Your task to perform on an android device: add a label to a message in the gmail app Image 0: 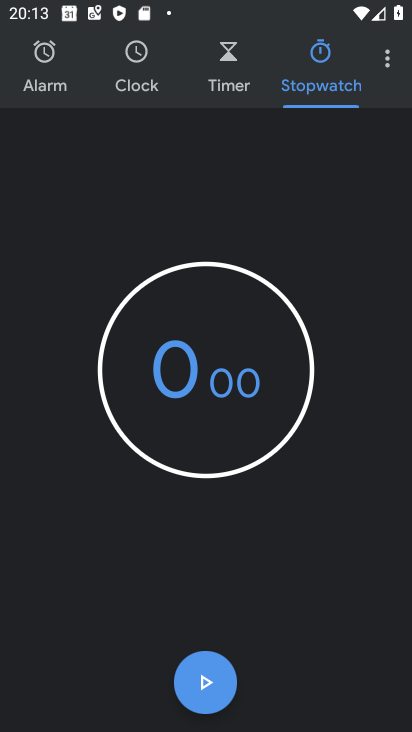
Step 0: press home button
Your task to perform on an android device: add a label to a message in the gmail app Image 1: 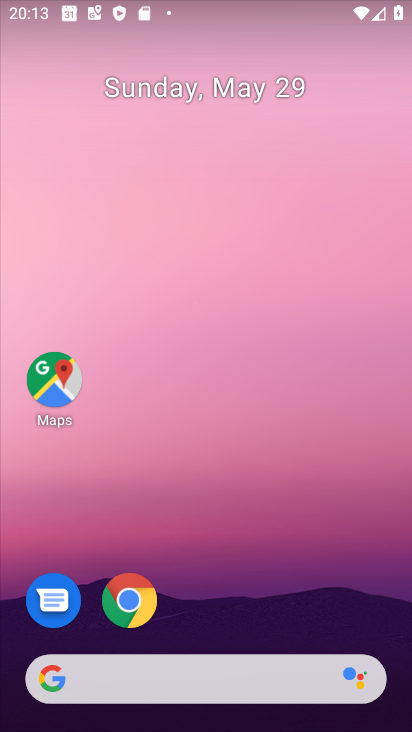
Step 1: drag from (316, 597) to (333, 147)
Your task to perform on an android device: add a label to a message in the gmail app Image 2: 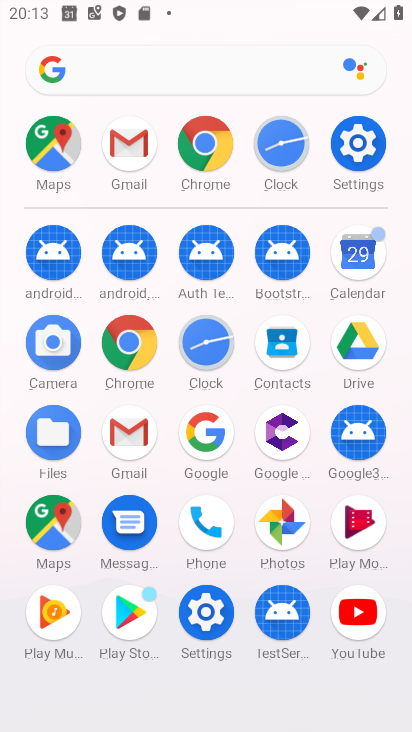
Step 2: click (129, 151)
Your task to perform on an android device: add a label to a message in the gmail app Image 3: 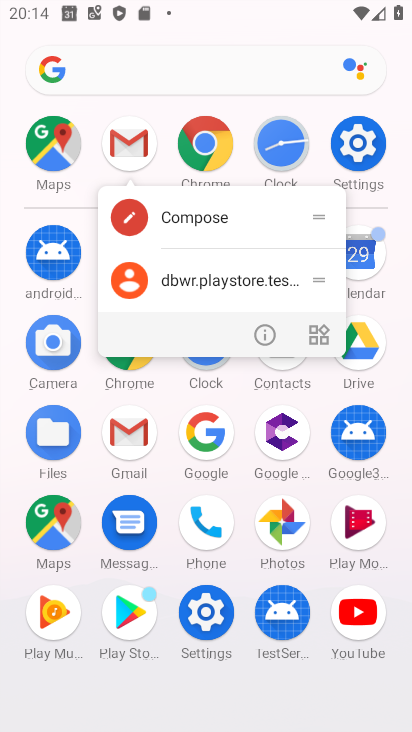
Step 3: click (135, 456)
Your task to perform on an android device: add a label to a message in the gmail app Image 4: 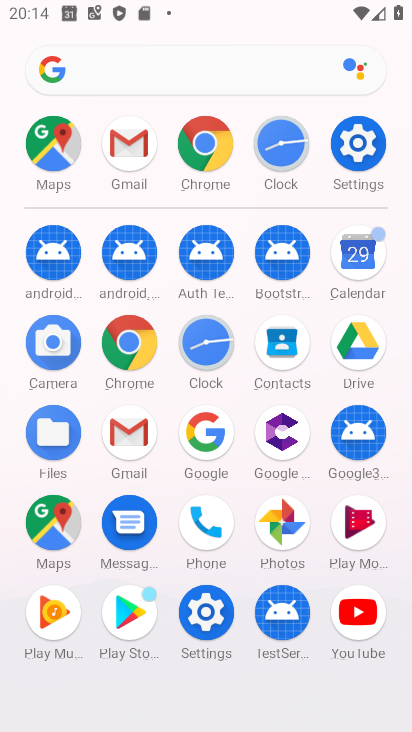
Step 4: click (141, 433)
Your task to perform on an android device: add a label to a message in the gmail app Image 5: 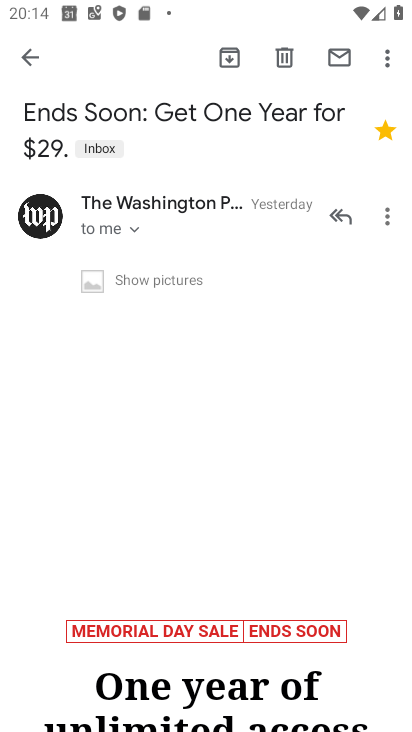
Step 5: click (394, 67)
Your task to perform on an android device: add a label to a message in the gmail app Image 6: 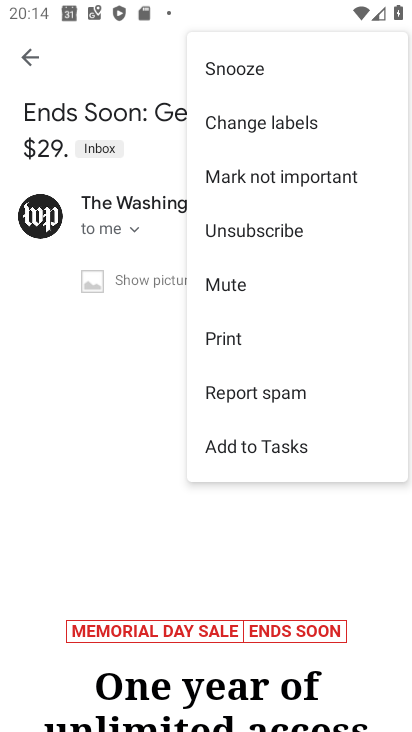
Step 6: task complete